Your task to perform on an android device: turn off airplane mode Image 0: 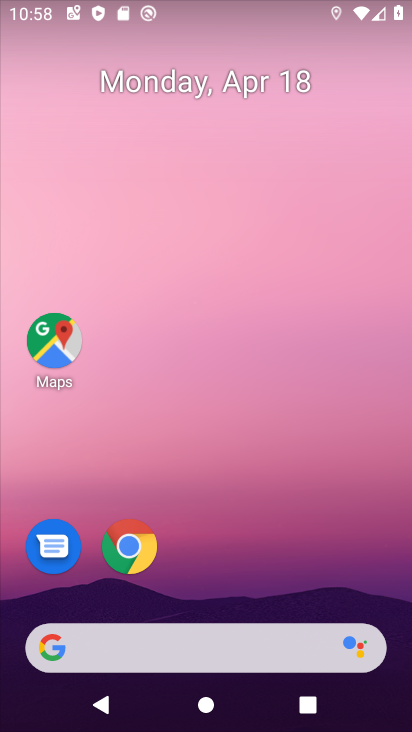
Step 0: drag from (337, 561) to (328, 196)
Your task to perform on an android device: turn off airplane mode Image 1: 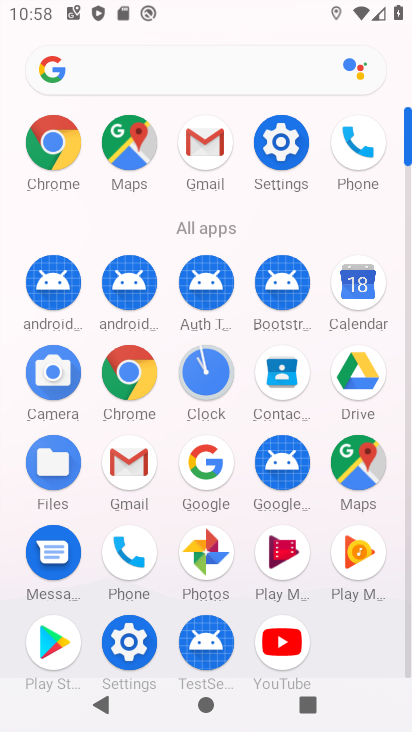
Step 1: click (282, 173)
Your task to perform on an android device: turn off airplane mode Image 2: 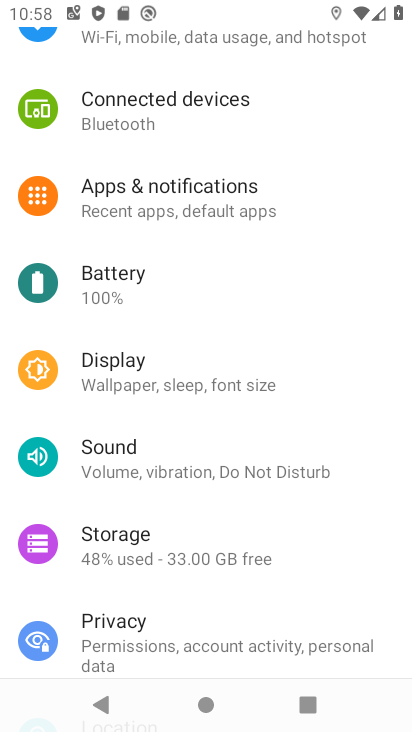
Step 2: drag from (193, 193) to (192, 470)
Your task to perform on an android device: turn off airplane mode Image 3: 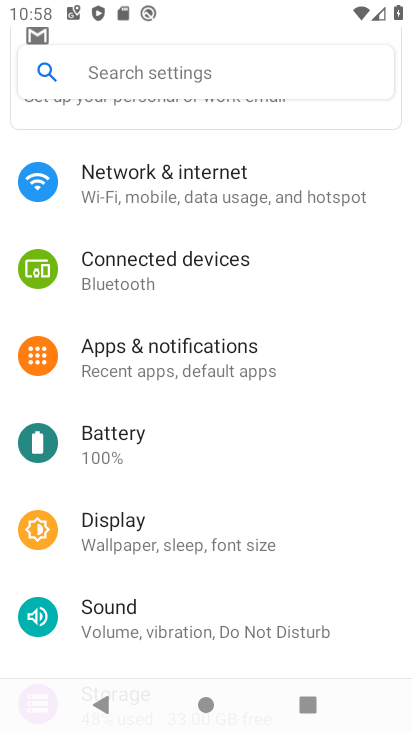
Step 3: click (225, 204)
Your task to perform on an android device: turn off airplane mode Image 4: 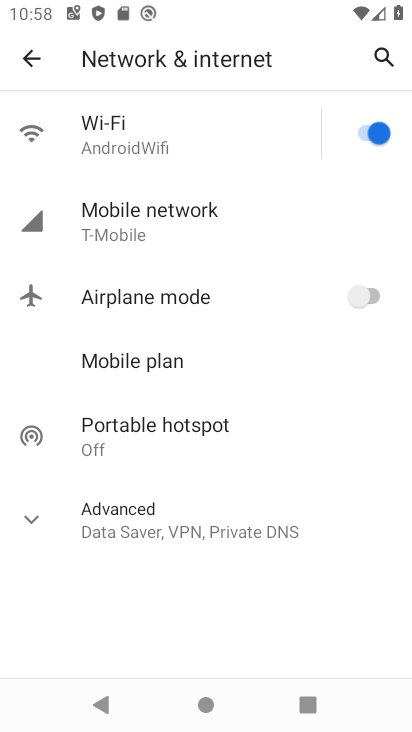
Step 4: task complete